Your task to perform on an android device: change your default location settings in chrome Image 0: 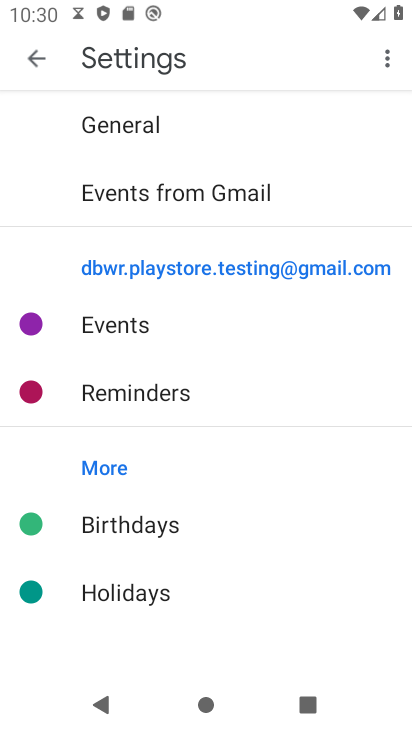
Step 0: press home button
Your task to perform on an android device: change your default location settings in chrome Image 1: 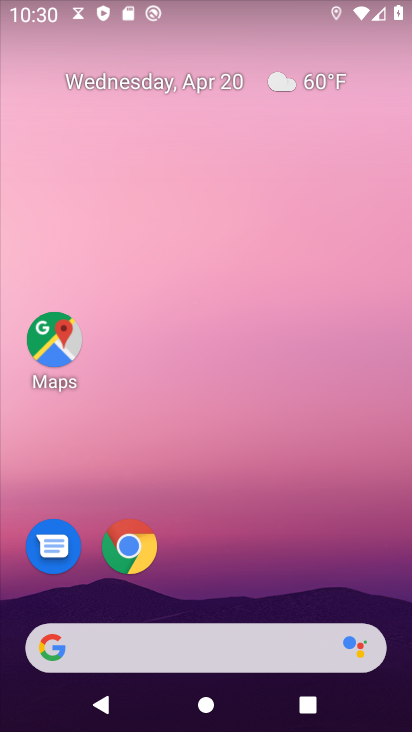
Step 1: click (141, 551)
Your task to perform on an android device: change your default location settings in chrome Image 2: 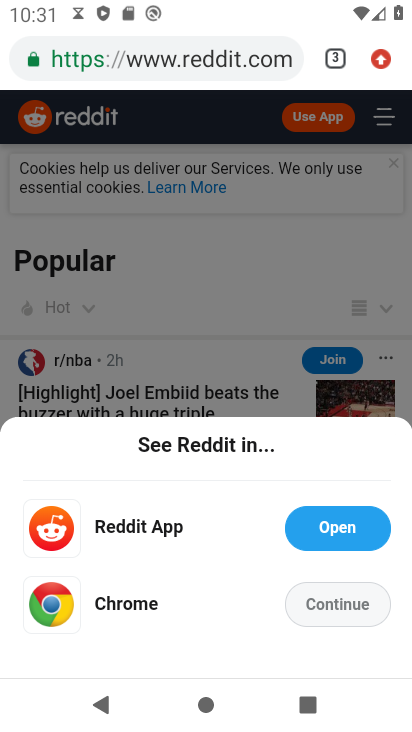
Step 2: click (376, 52)
Your task to perform on an android device: change your default location settings in chrome Image 3: 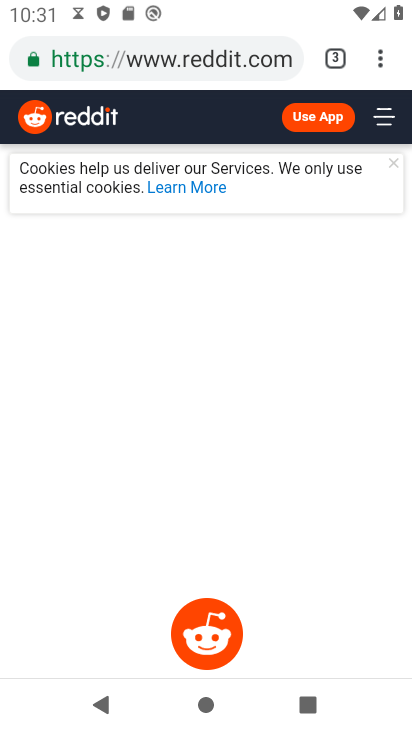
Step 3: click (385, 65)
Your task to perform on an android device: change your default location settings in chrome Image 4: 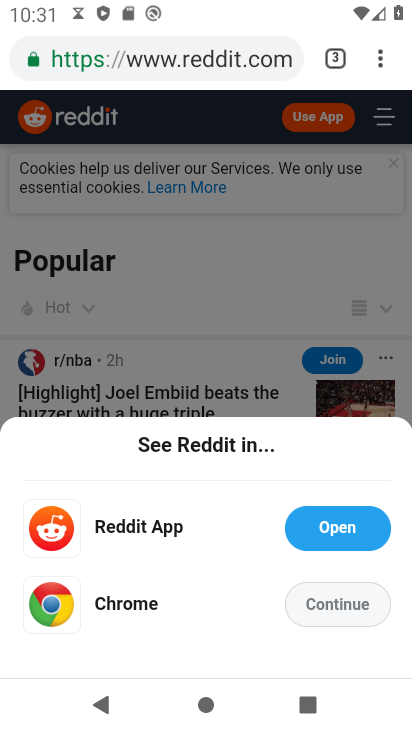
Step 4: click (376, 57)
Your task to perform on an android device: change your default location settings in chrome Image 5: 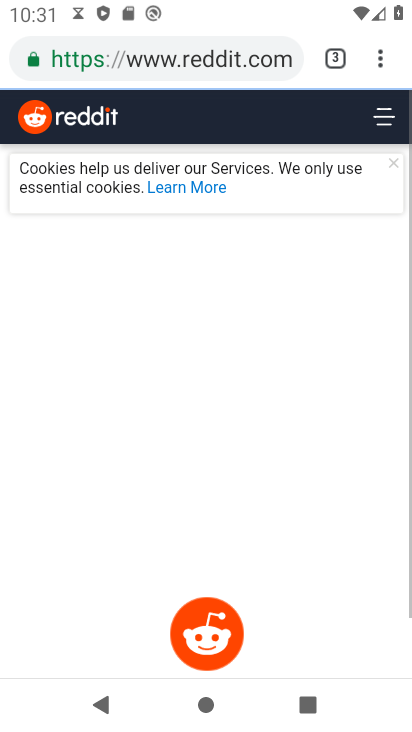
Step 5: click (376, 57)
Your task to perform on an android device: change your default location settings in chrome Image 6: 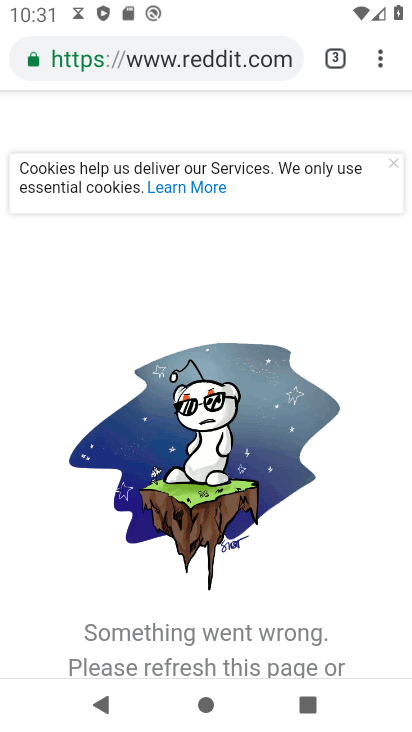
Step 6: click (376, 57)
Your task to perform on an android device: change your default location settings in chrome Image 7: 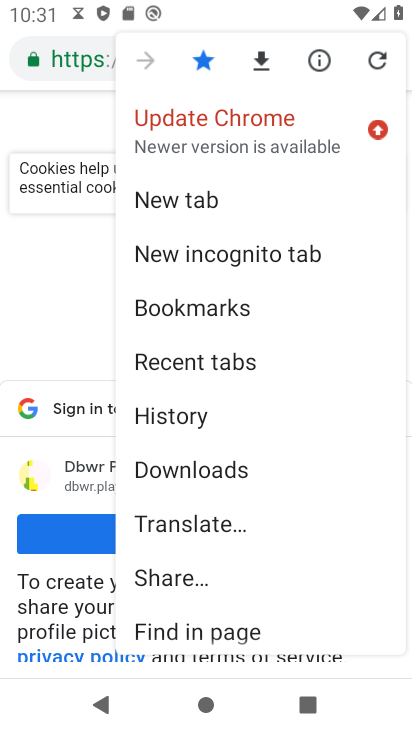
Step 7: drag from (268, 590) to (274, 216)
Your task to perform on an android device: change your default location settings in chrome Image 8: 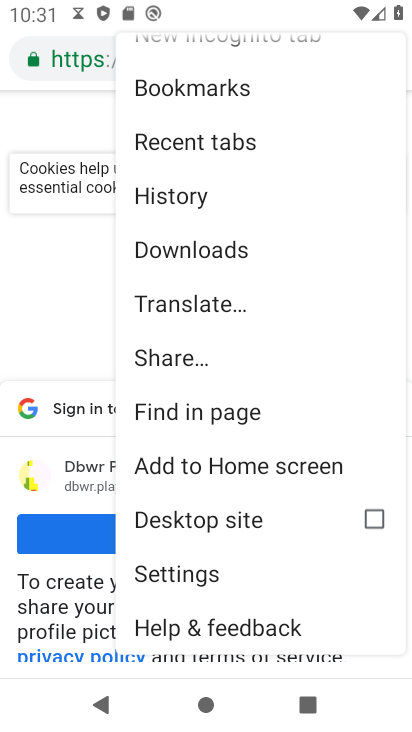
Step 8: click (197, 566)
Your task to perform on an android device: change your default location settings in chrome Image 9: 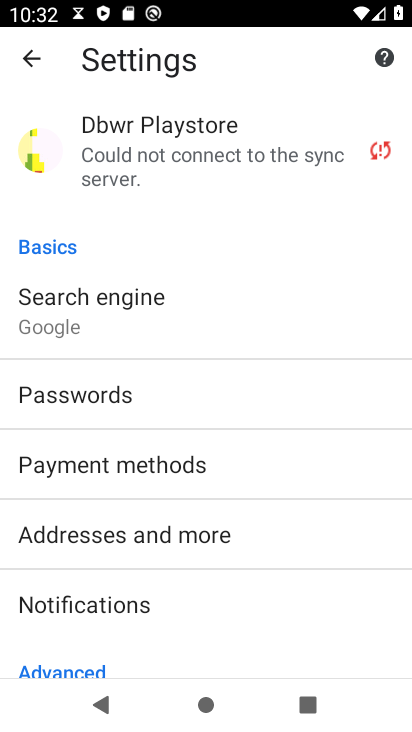
Step 9: drag from (200, 573) to (227, 234)
Your task to perform on an android device: change your default location settings in chrome Image 10: 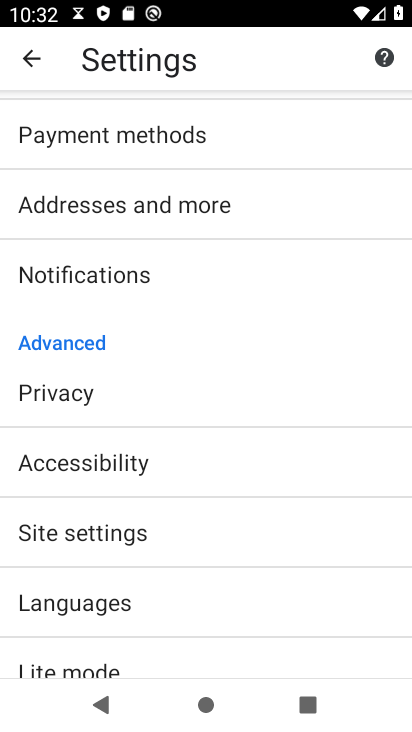
Step 10: click (145, 540)
Your task to perform on an android device: change your default location settings in chrome Image 11: 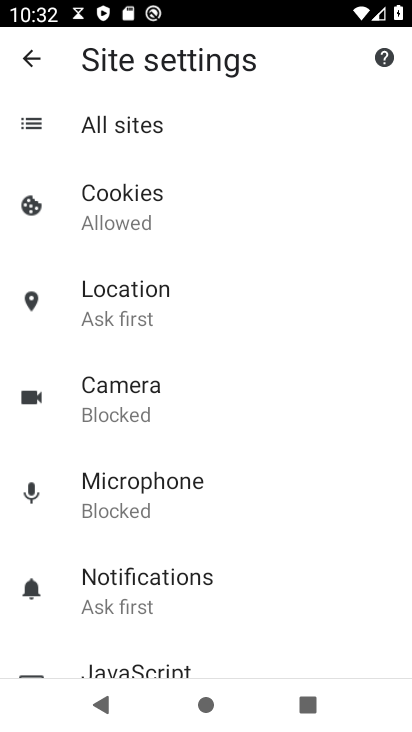
Step 11: click (188, 299)
Your task to perform on an android device: change your default location settings in chrome Image 12: 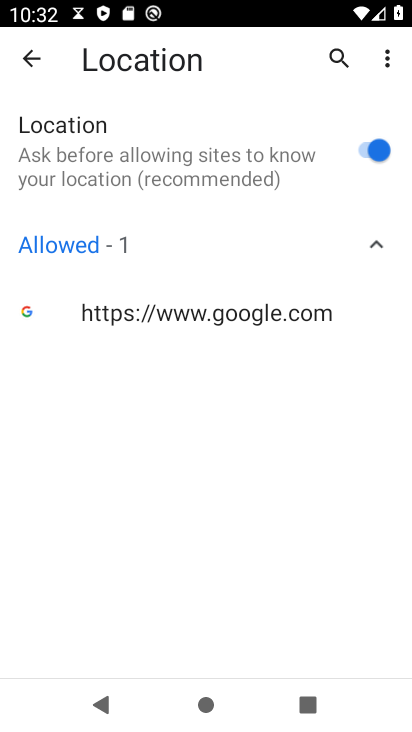
Step 12: click (374, 140)
Your task to perform on an android device: change your default location settings in chrome Image 13: 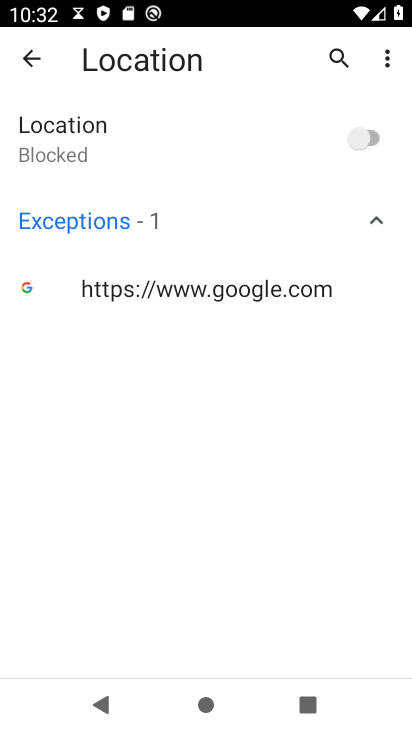
Step 13: task complete